Your task to perform on an android device: toggle improve location accuracy Image 0: 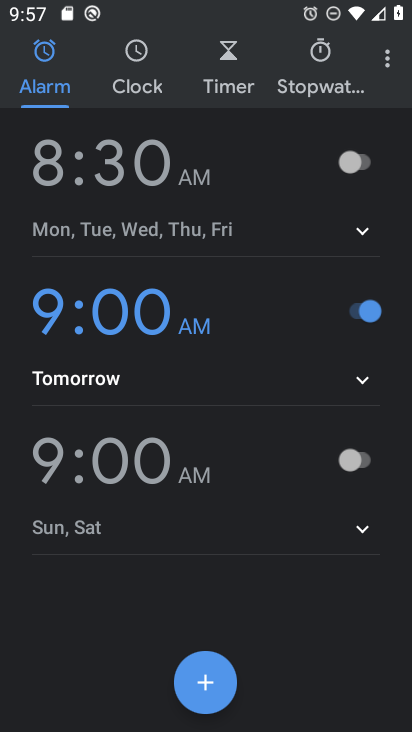
Step 0: press home button
Your task to perform on an android device: toggle improve location accuracy Image 1: 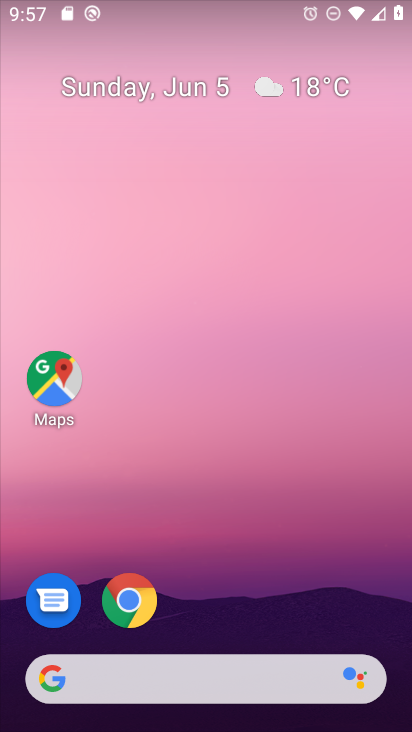
Step 1: drag from (230, 590) to (179, 70)
Your task to perform on an android device: toggle improve location accuracy Image 2: 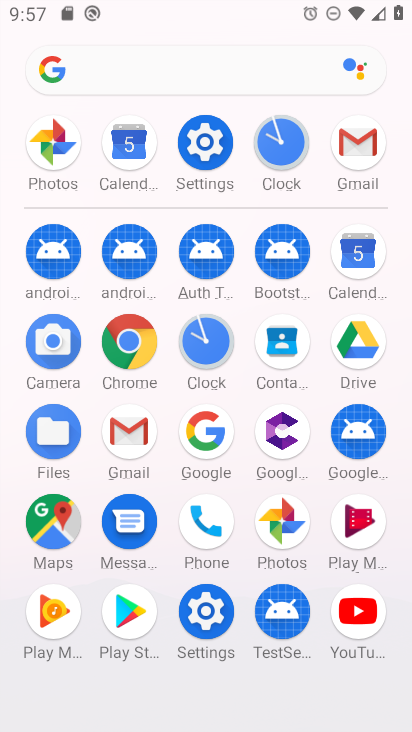
Step 2: click (194, 152)
Your task to perform on an android device: toggle improve location accuracy Image 3: 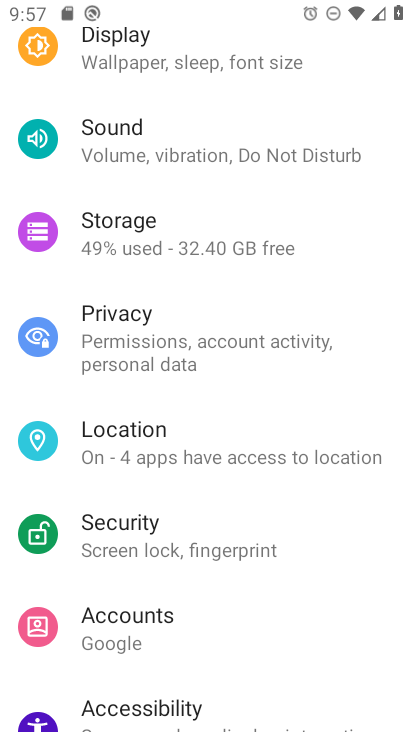
Step 3: click (264, 461)
Your task to perform on an android device: toggle improve location accuracy Image 4: 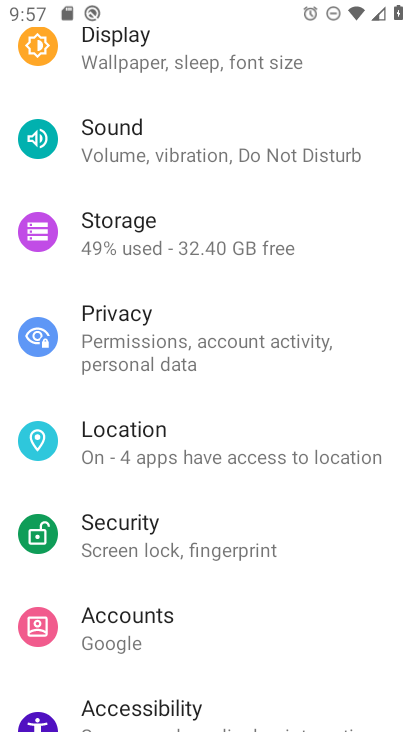
Step 4: click (264, 461)
Your task to perform on an android device: toggle improve location accuracy Image 5: 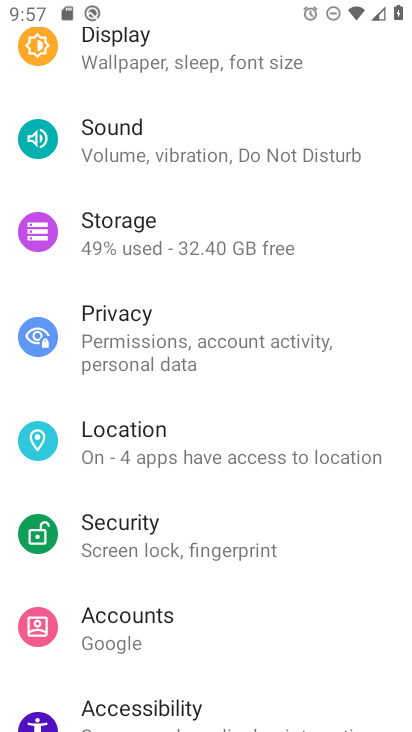
Step 5: click (241, 436)
Your task to perform on an android device: toggle improve location accuracy Image 6: 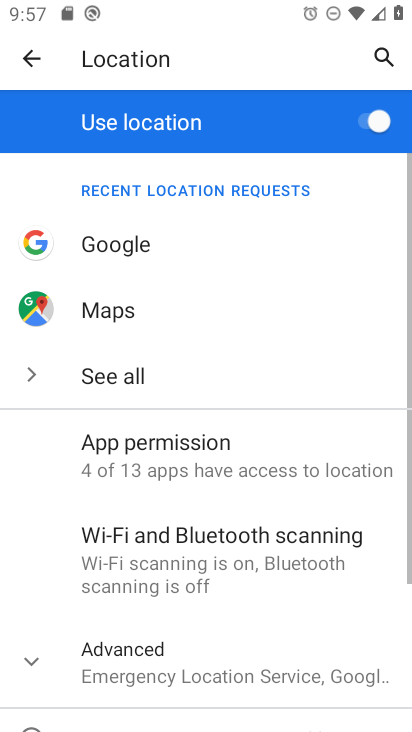
Step 6: click (24, 658)
Your task to perform on an android device: toggle improve location accuracy Image 7: 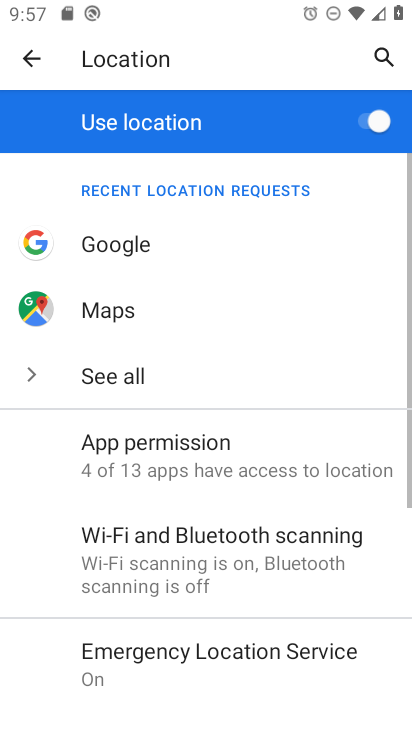
Step 7: drag from (308, 576) to (236, 163)
Your task to perform on an android device: toggle improve location accuracy Image 8: 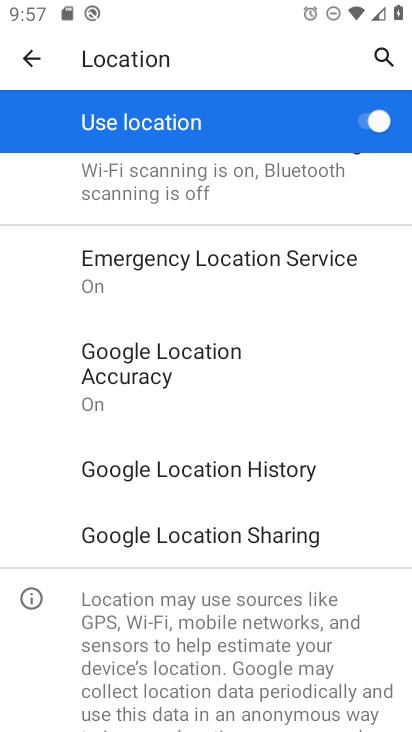
Step 8: click (238, 361)
Your task to perform on an android device: toggle improve location accuracy Image 9: 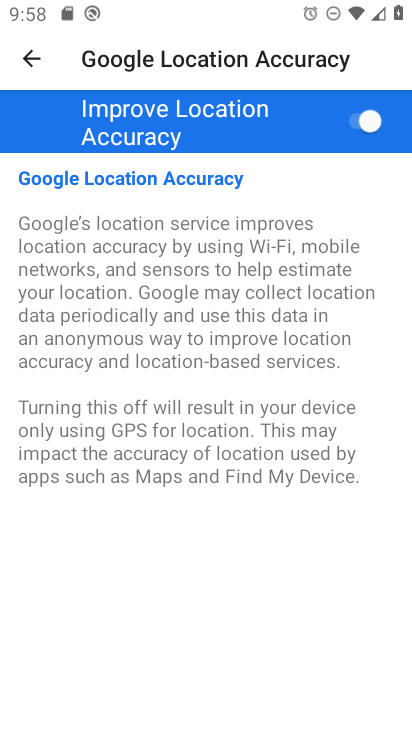
Step 9: click (352, 117)
Your task to perform on an android device: toggle improve location accuracy Image 10: 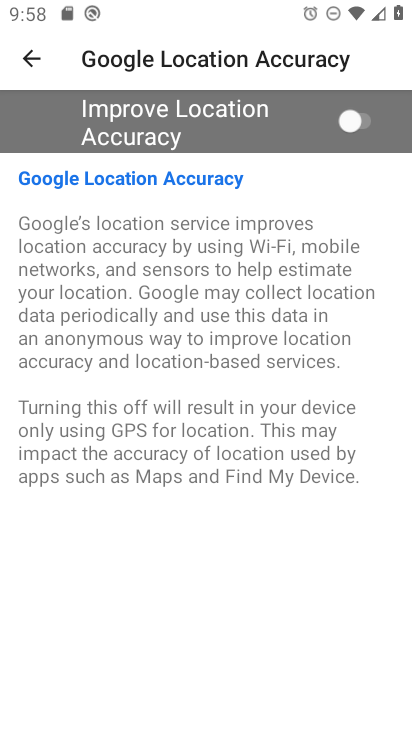
Step 10: task complete